Your task to perform on an android device: Go to calendar. Show me events next week Image 0: 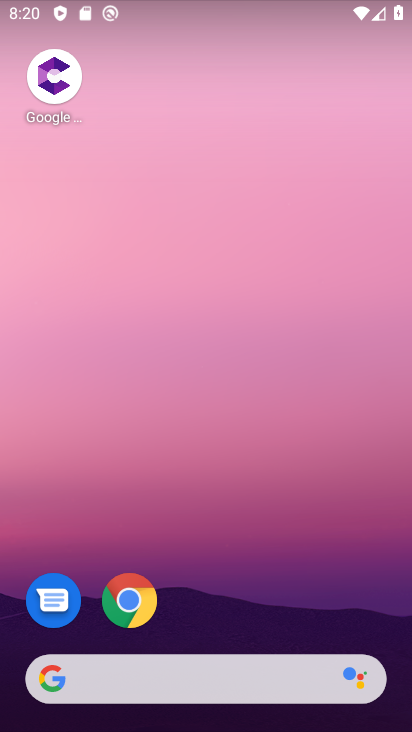
Step 0: drag from (213, 601) to (241, 144)
Your task to perform on an android device: Go to calendar. Show me events next week Image 1: 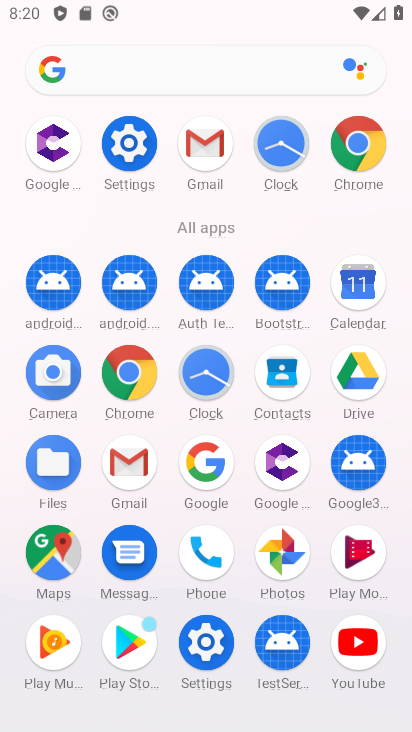
Step 1: click (352, 286)
Your task to perform on an android device: Go to calendar. Show me events next week Image 2: 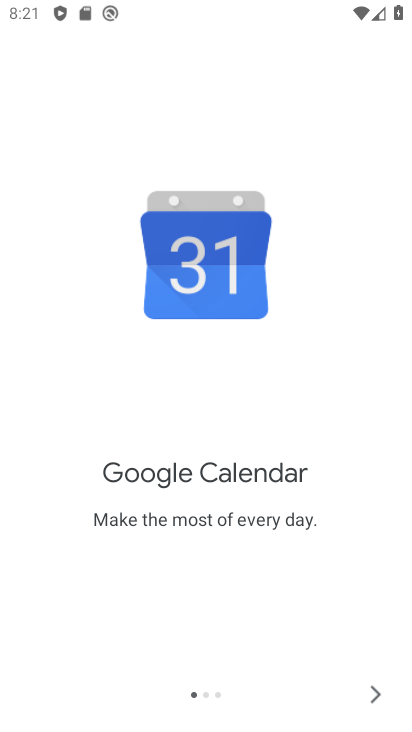
Step 2: click (377, 691)
Your task to perform on an android device: Go to calendar. Show me events next week Image 3: 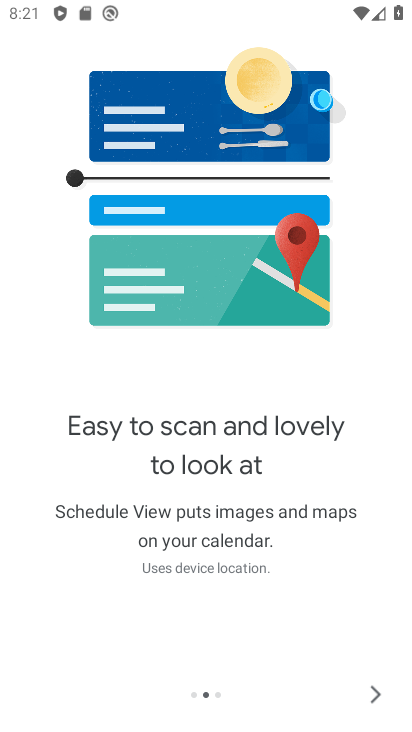
Step 3: click (377, 691)
Your task to perform on an android device: Go to calendar. Show me events next week Image 4: 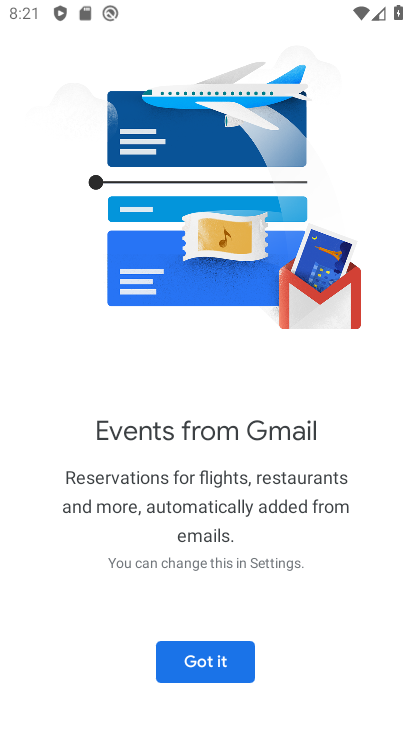
Step 4: click (194, 668)
Your task to perform on an android device: Go to calendar. Show me events next week Image 5: 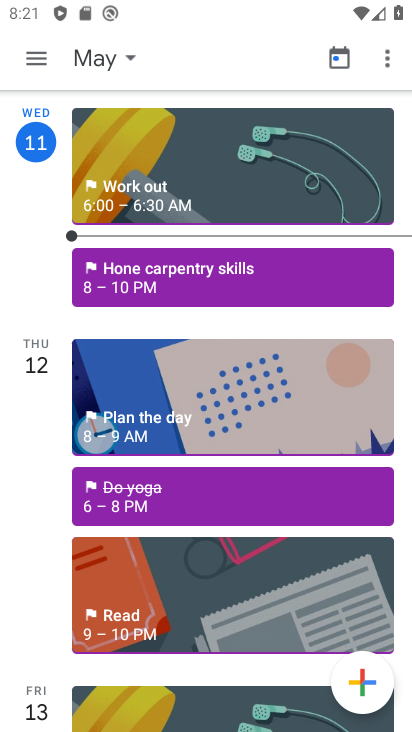
Step 5: click (122, 61)
Your task to perform on an android device: Go to calendar. Show me events next week Image 6: 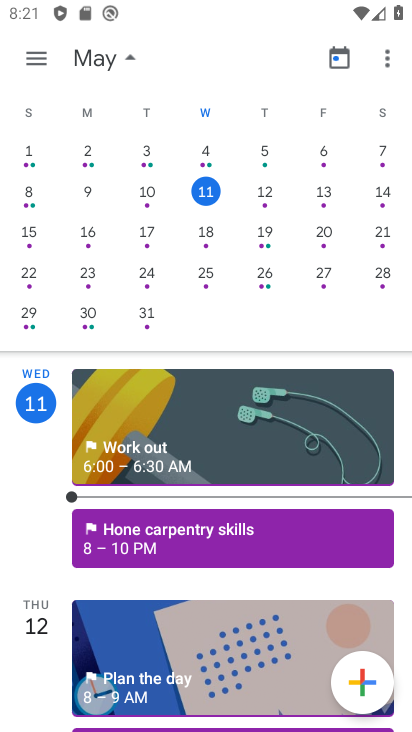
Step 6: drag from (271, 195) to (305, 303)
Your task to perform on an android device: Go to calendar. Show me events next week Image 7: 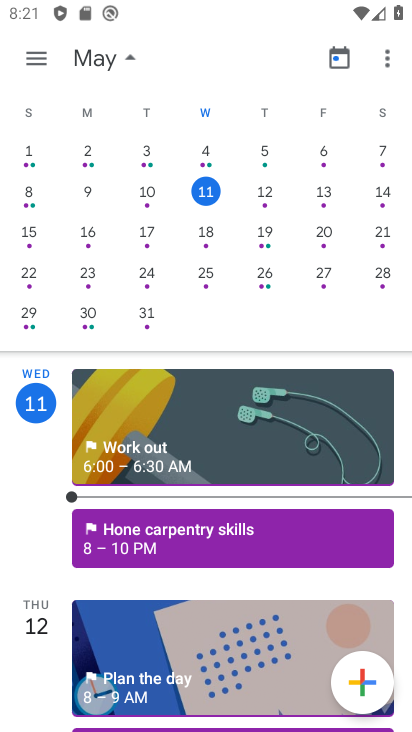
Step 7: click (260, 230)
Your task to perform on an android device: Go to calendar. Show me events next week Image 8: 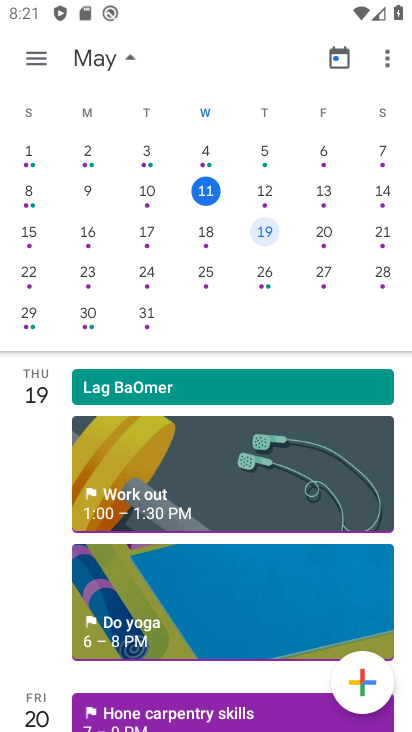
Step 8: click (262, 226)
Your task to perform on an android device: Go to calendar. Show me events next week Image 9: 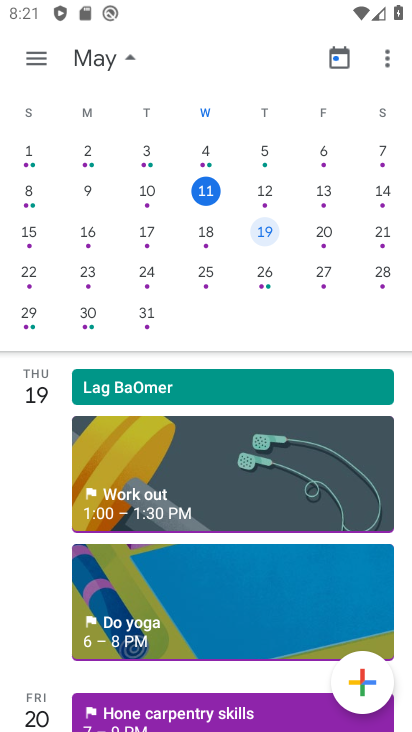
Step 9: click (262, 226)
Your task to perform on an android device: Go to calendar. Show me events next week Image 10: 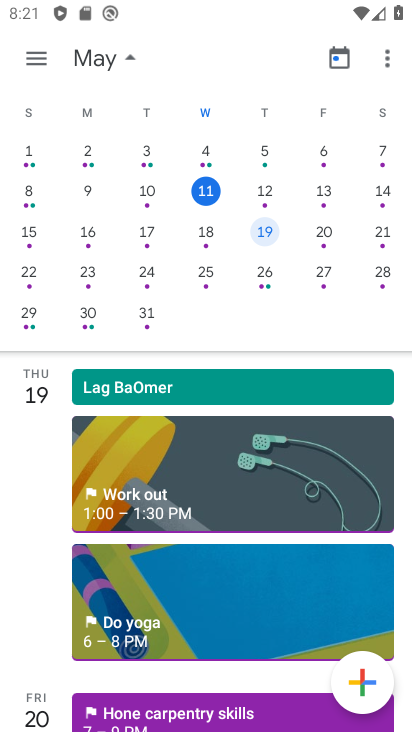
Step 10: task complete